Your task to perform on an android device: toggle priority inbox in the gmail app Image 0: 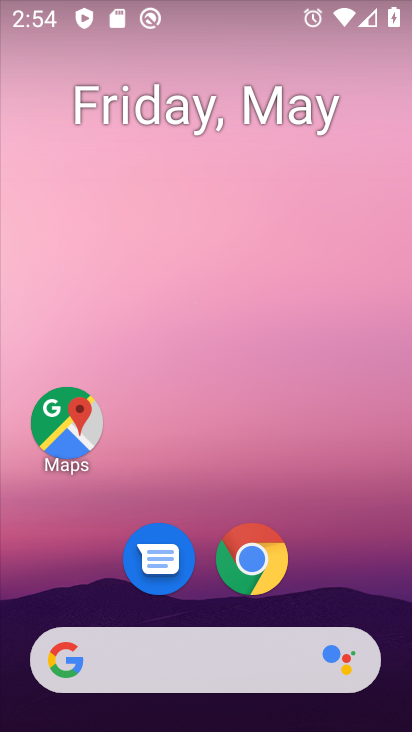
Step 0: drag from (350, 583) to (195, 65)
Your task to perform on an android device: toggle priority inbox in the gmail app Image 1: 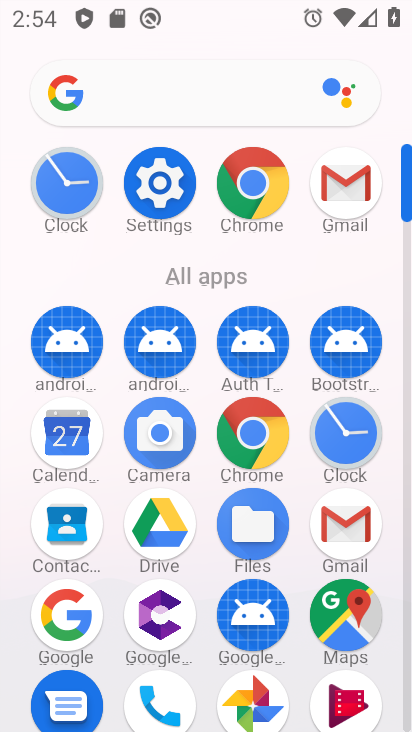
Step 1: click (343, 516)
Your task to perform on an android device: toggle priority inbox in the gmail app Image 2: 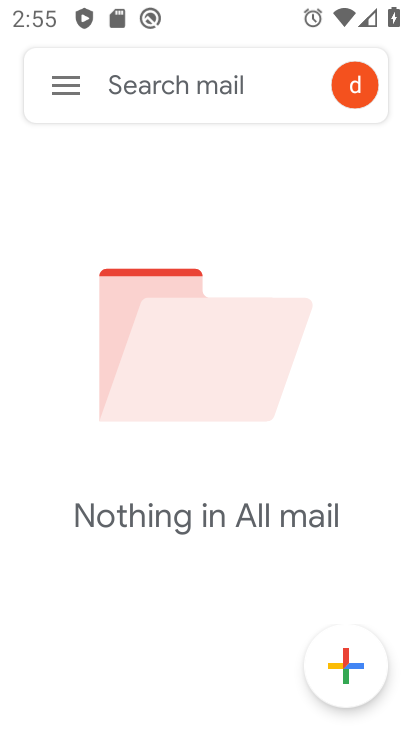
Step 2: click (68, 92)
Your task to perform on an android device: toggle priority inbox in the gmail app Image 3: 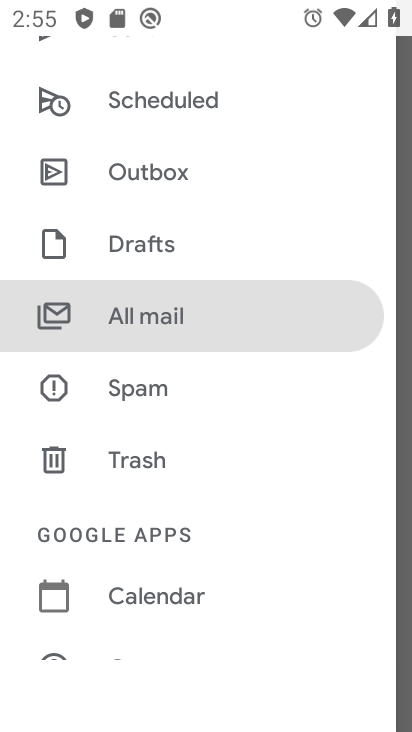
Step 3: drag from (105, 143) to (191, 589)
Your task to perform on an android device: toggle priority inbox in the gmail app Image 4: 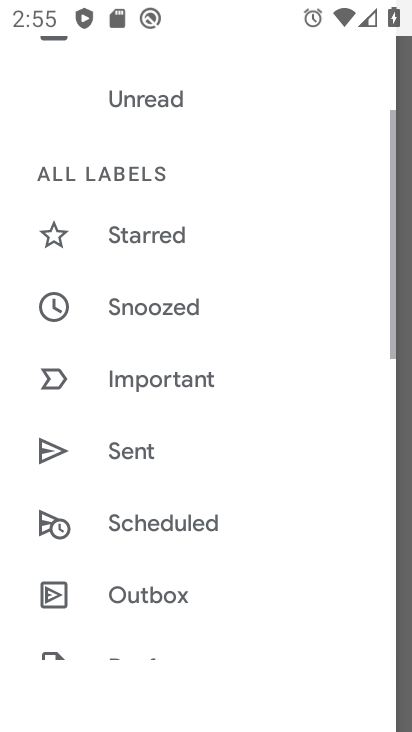
Step 4: click (143, 176)
Your task to perform on an android device: toggle priority inbox in the gmail app Image 5: 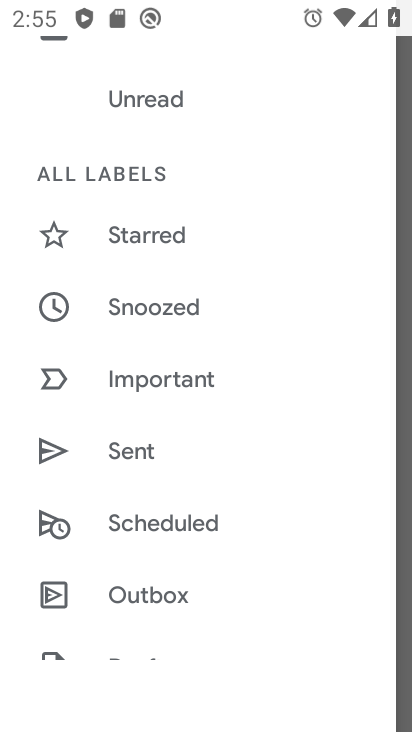
Step 5: task complete